Your task to perform on an android device: turn on airplane mode Image 0: 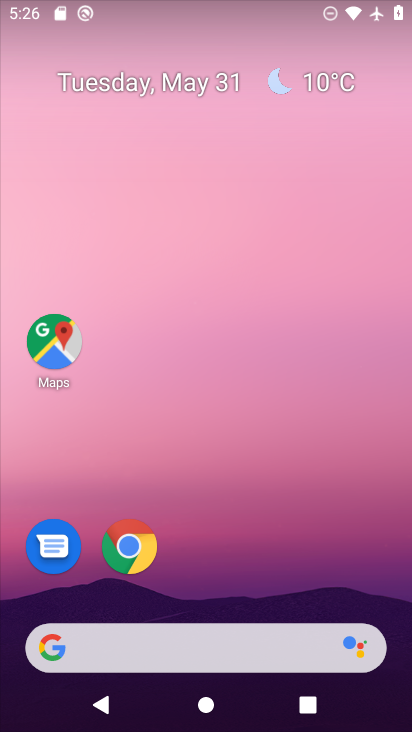
Step 0: drag from (260, 490) to (90, 6)
Your task to perform on an android device: turn on airplane mode Image 1: 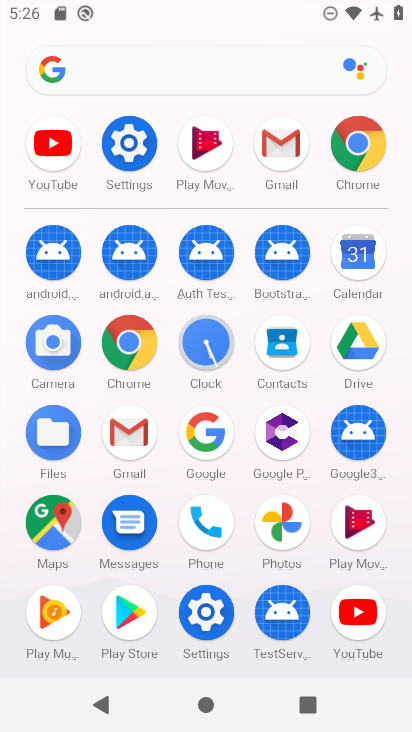
Step 1: click (132, 157)
Your task to perform on an android device: turn on airplane mode Image 2: 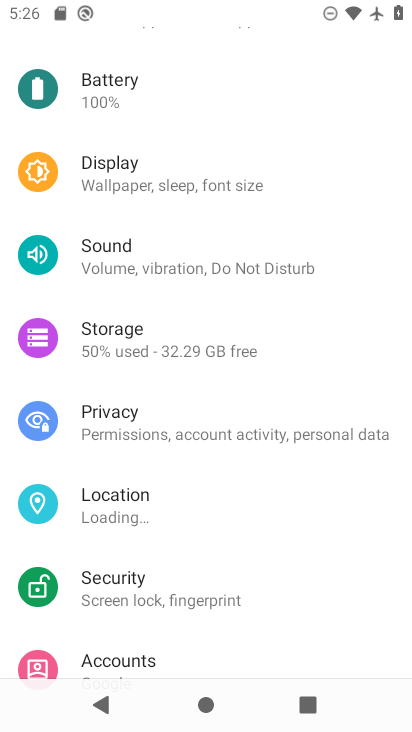
Step 2: drag from (213, 105) to (273, 714)
Your task to perform on an android device: turn on airplane mode Image 3: 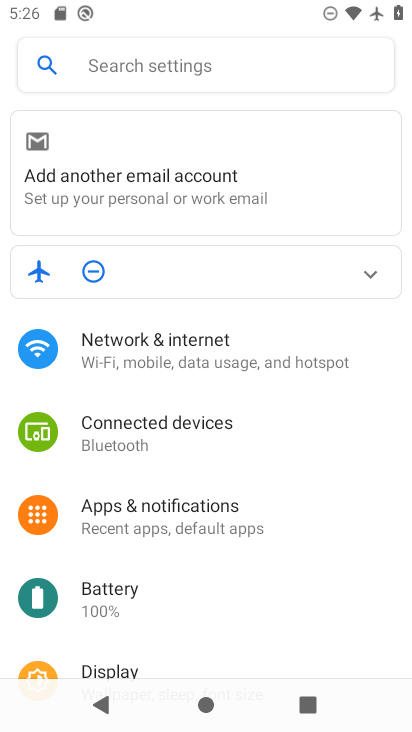
Step 3: click (198, 357)
Your task to perform on an android device: turn on airplane mode Image 4: 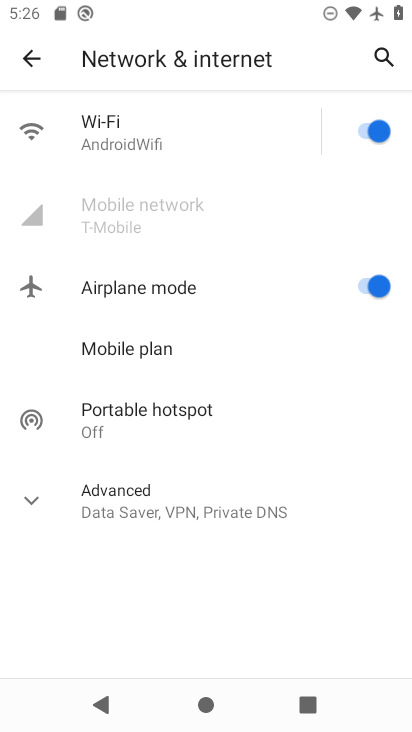
Step 4: task complete